Your task to perform on an android device: Open the Play Movies app and select the watchlist tab. Image 0: 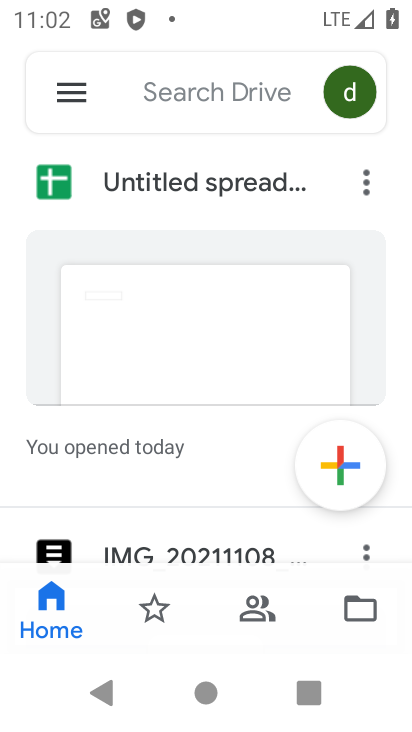
Step 0: press home button
Your task to perform on an android device: Open the Play Movies app and select the watchlist tab. Image 1: 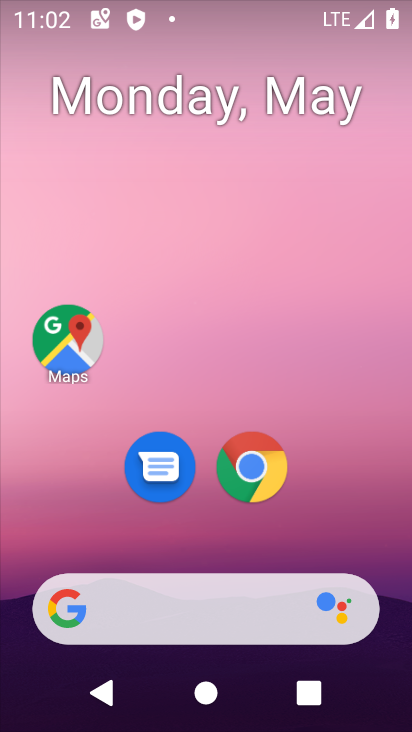
Step 1: drag from (379, 674) to (322, 67)
Your task to perform on an android device: Open the Play Movies app and select the watchlist tab. Image 2: 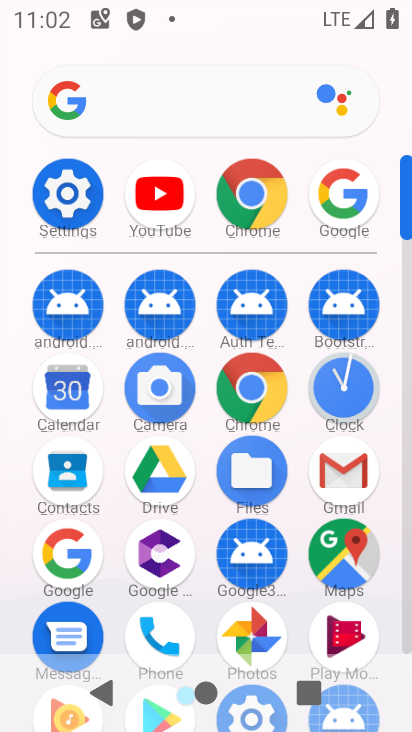
Step 2: click (341, 631)
Your task to perform on an android device: Open the Play Movies app and select the watchlist tab. Image 3: 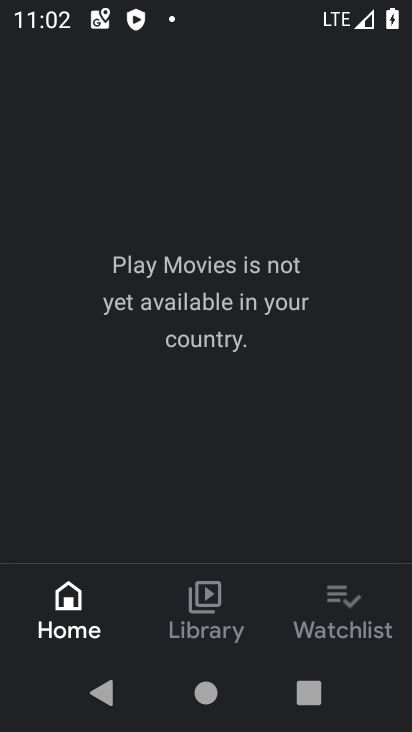
Step 3: click (340, 609)
Your task to perform on an android device: Open the Play Movies app and select the watchlist tab. Image 4: 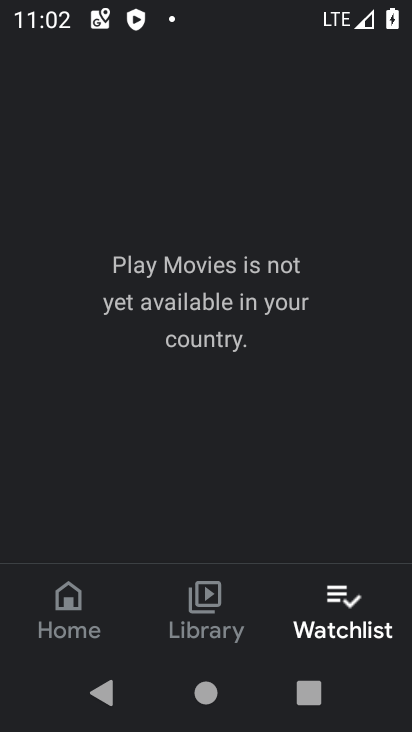
Step 4: task complete